Your task to perform on an android device: check battery use Image 0: 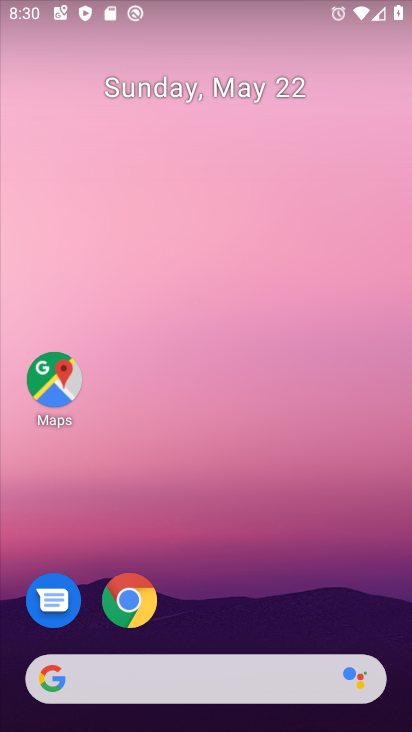
Step 0: drag from (281, 195) to (318, 264)
Your task to perform on an android device: check battery use Image 1: 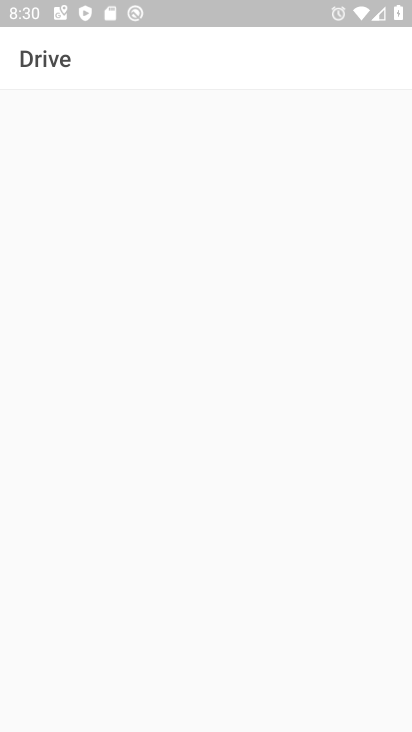
Step 1: press home button
Your task to perform on an android device: check battery use Image 2: 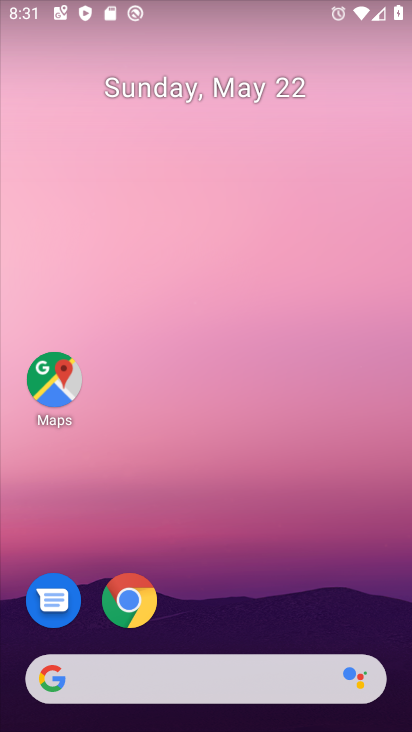
Step 2: drag from (278, 643) to (322, 118)
Your task to perform on an android device: check battery use Image 3: 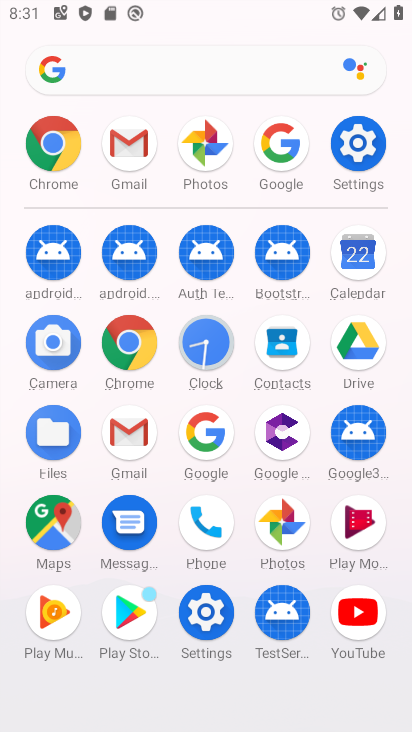
Step 3: click (374, 174)
Your task to perform on an android device: check battery use Image 4: 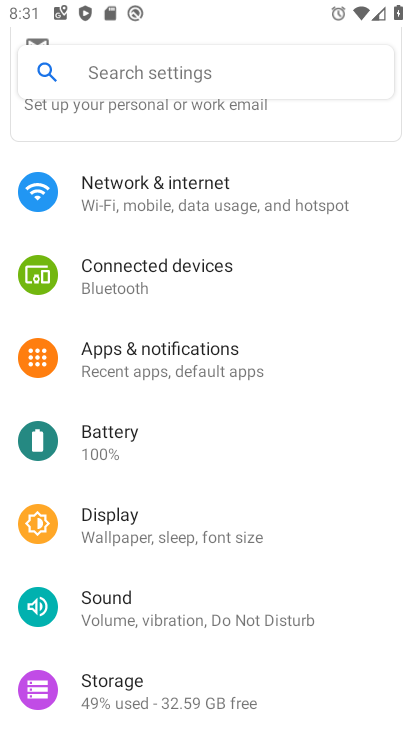
Step 4: click (180, 444)
Your task to perform on an android device: check battery use Image 5: 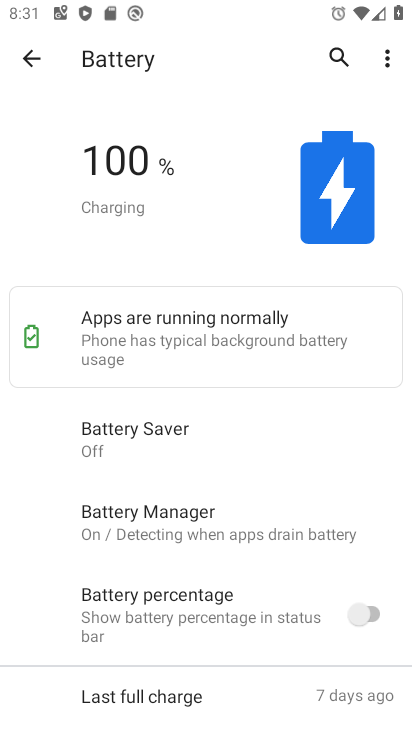
Step 5: task complete